Your task to perform on an android device: Open Yahoo.com Image 0: 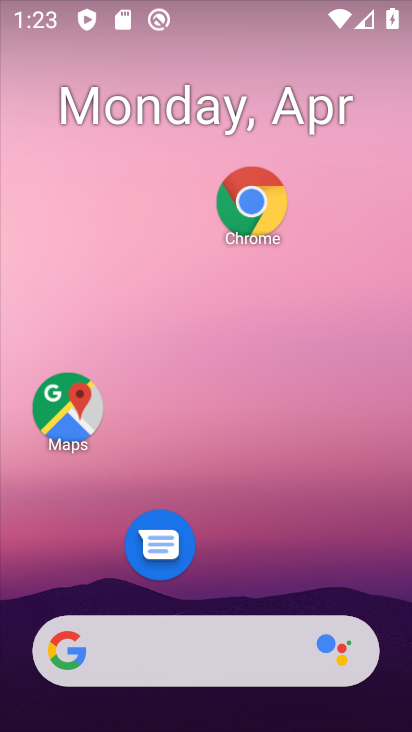
Step 0: click (253, 194)
Your task to perform on an android device: Open Yahoo.com Image 1: 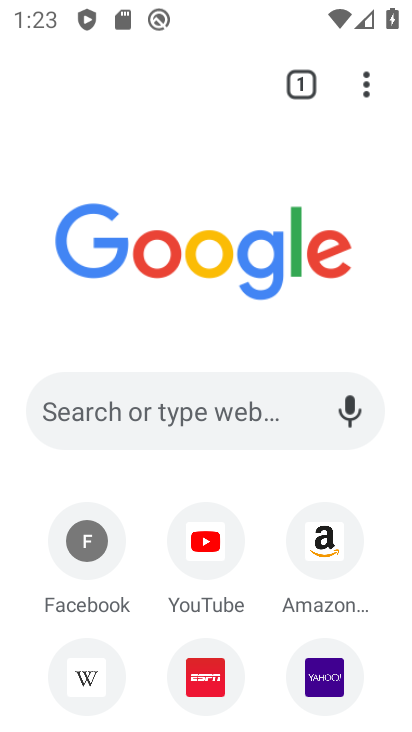
Step 1: click (329, 661)
Your task to perform on an android device: Open Yahoo.com Image 2: 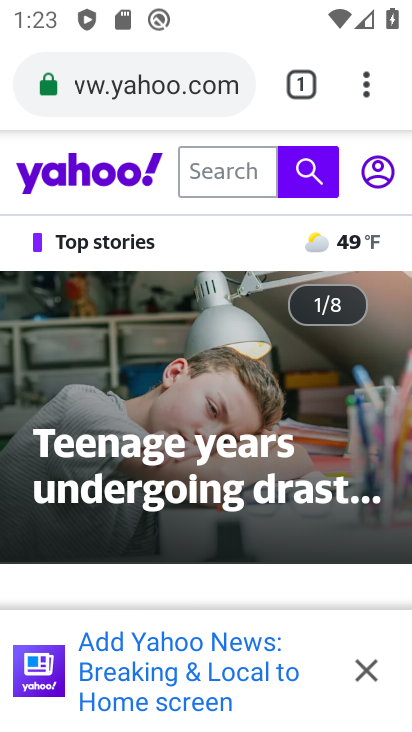
Step 2: task complete